Your task to perform on an android device: Go to calendar. Show me events next week Image 0: 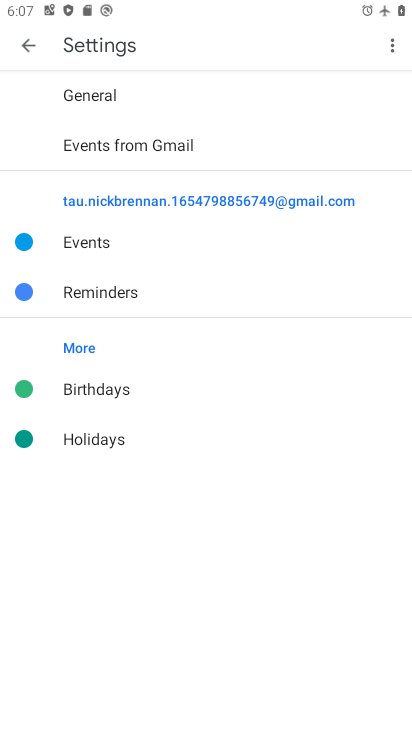
Step 0: press home button
Your task to perform on an android device: Go to calendar. Show me events next week Image 1: 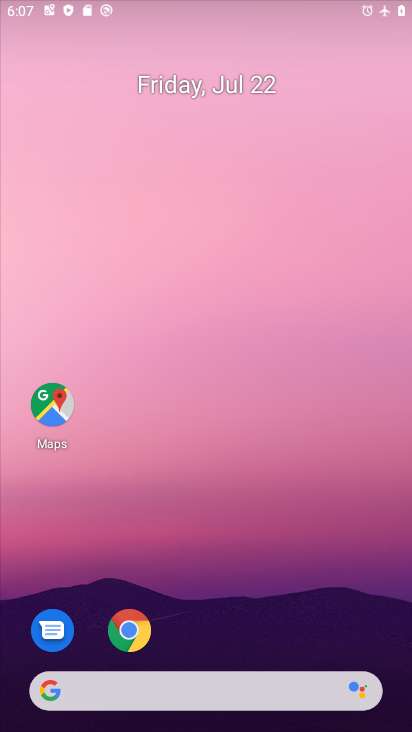
Step 1: drag from (214, 688) to (263, 3)
Your task to perform on an android device: Go to calendar. Show me events next week Image 2: 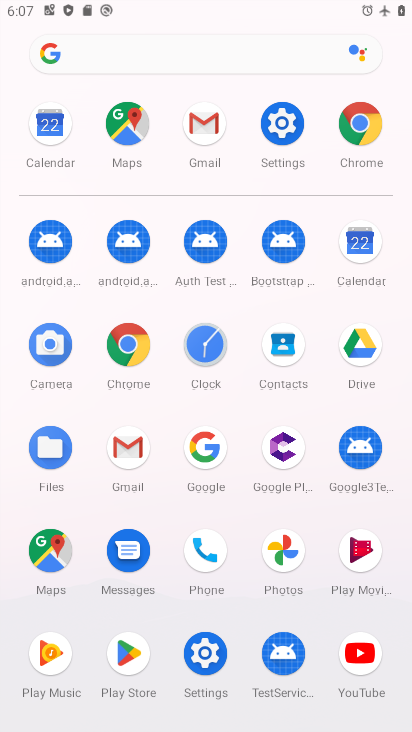
Step 2: click (373, 251)
Your task to perform on an android device: Go to calendar. Show me events next week Image 3: 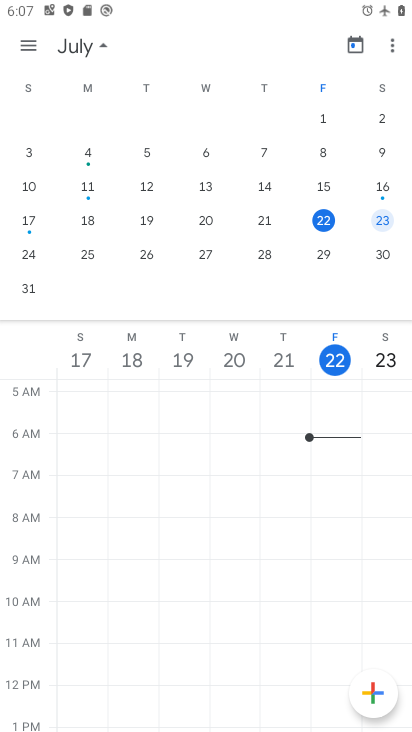
Step 3: click (211, 250)
Your task to perform on an android device: Go to calendar. Show me events next week Image 4: 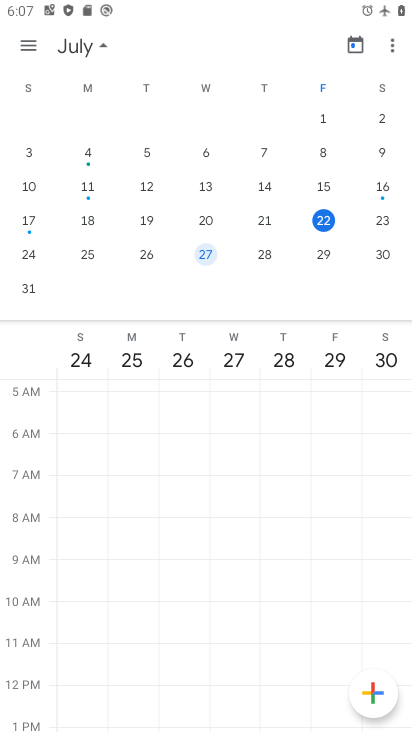
Step 4: task complete